Your task to perform on an android device: Open Google Maps Image 0: 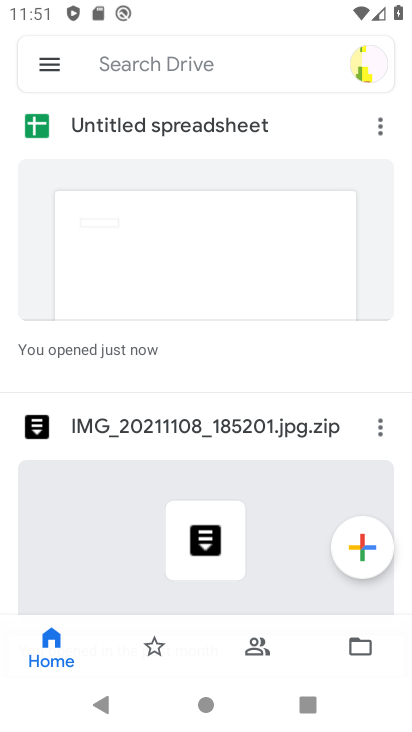
Step 0: press home button
Your task to perform on an android device: Open Google Maps Image 1: 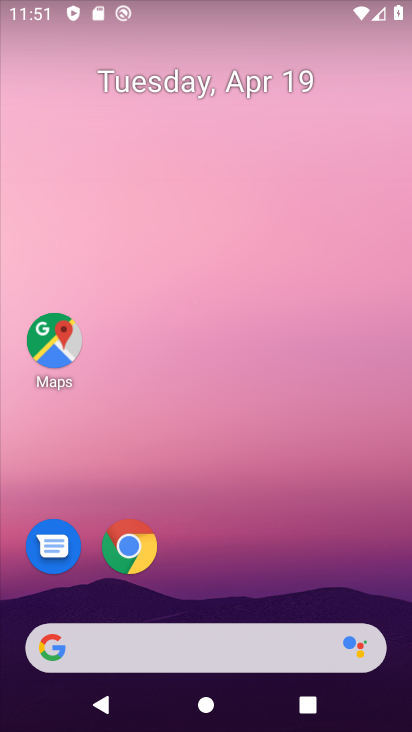
Step 1: click (40, 351)
Your task to perform on an android device: Open Google Maps Image 2: 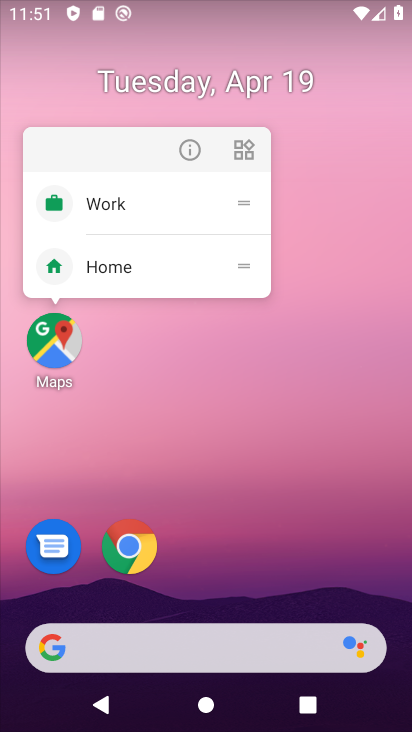
Step 2: click (40, 351)
Your task to perform on an android device: Open Google Maps Image 3: 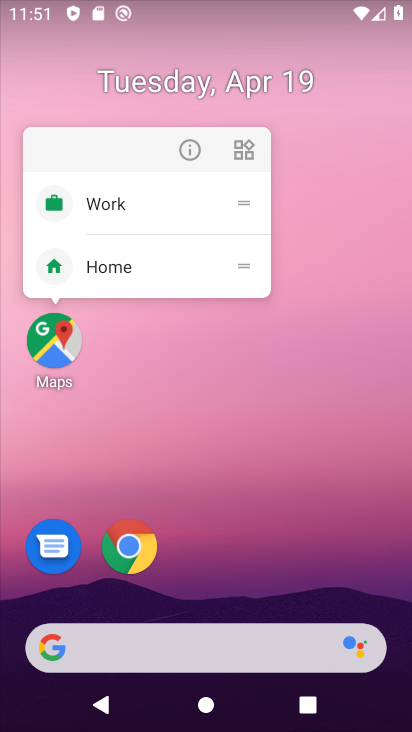
Step 3: click (40, 351)
Your task to perform on an android device: Open Google Maps Image 4: 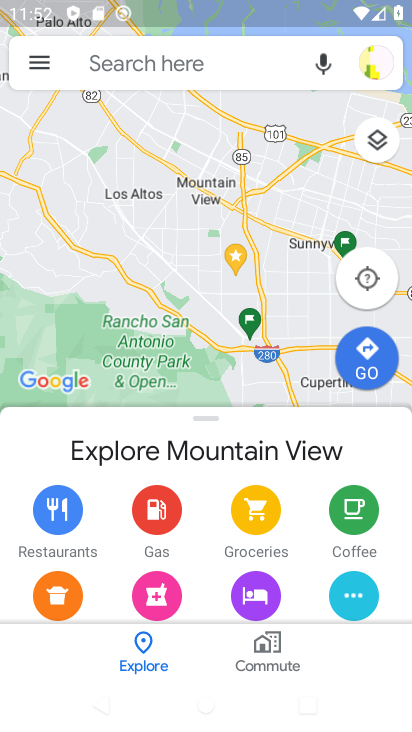
Step 4: task complete